Your task to perform on an android device: toggle airplane mode Image 0: 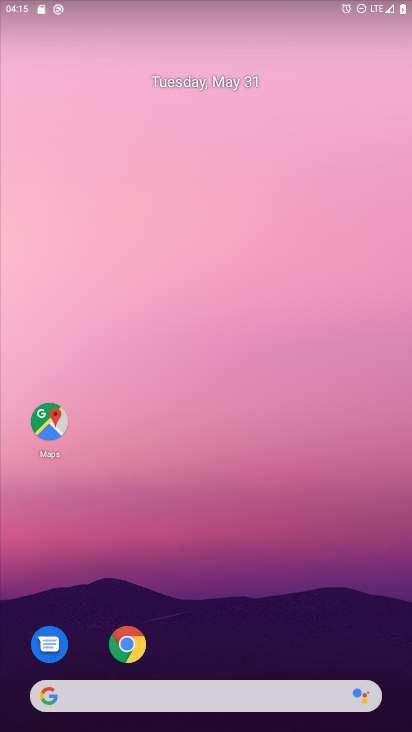
Step 0: drag from (283, 599) to (227, 116)
Your task to perform on an android device: toggle airplane mode Image 1: 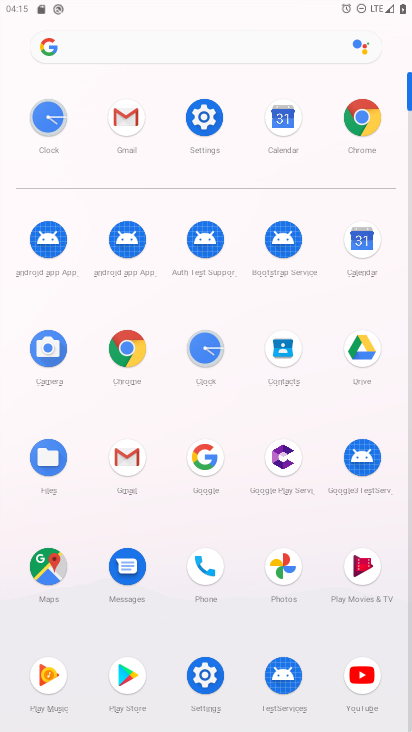
Step 1: click (206, 122)
Your task to perform on an android device: toggle airplane mode Image 2: 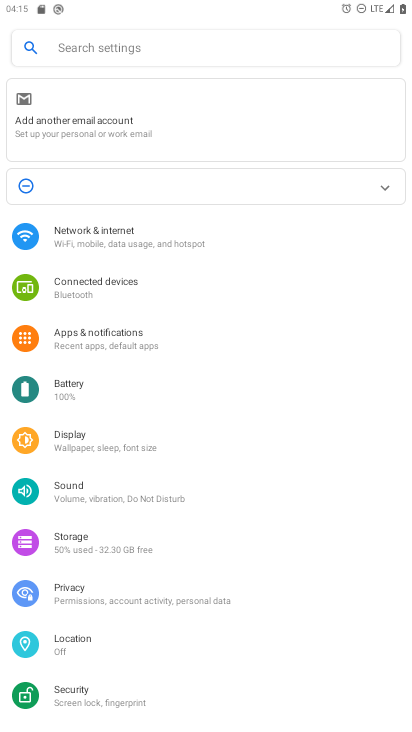
Step 2: click (134, 234)
Your task to perform on an android device: toggle airplane mode Image 3: 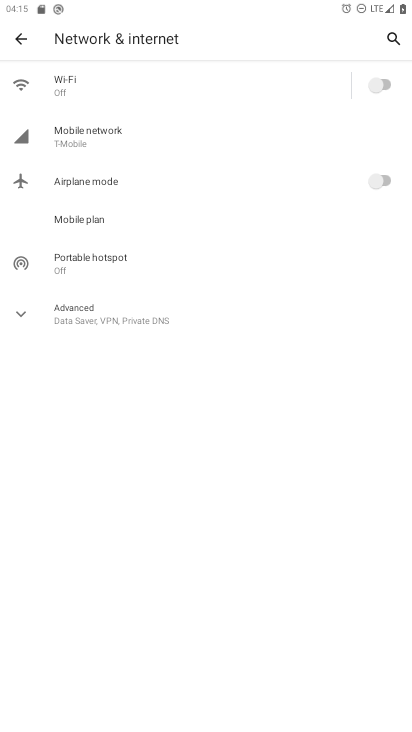
Step 3: click (107, 314)
Your task to perform on an android device: toggle airplane mode Image 4: 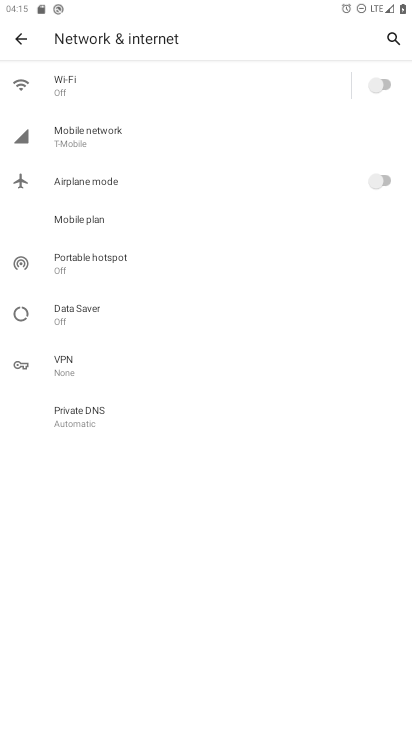
Step 4: click (376, 175)
Your task to perform on an android device: toggle airplane mode Image 5: 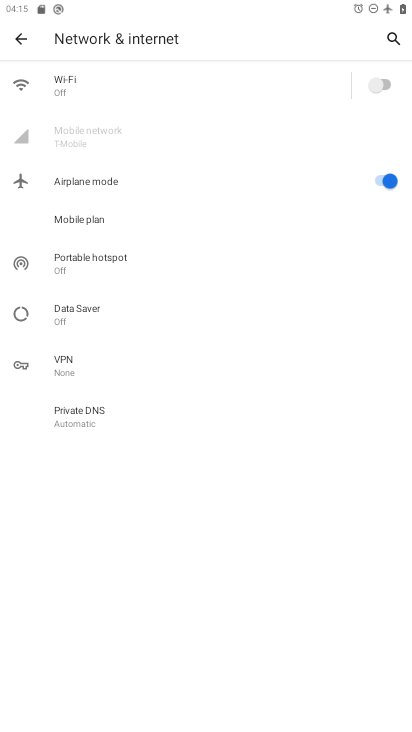
Step 5: task complete